Your task to perform on an android device: Go to Google maps Image 0: 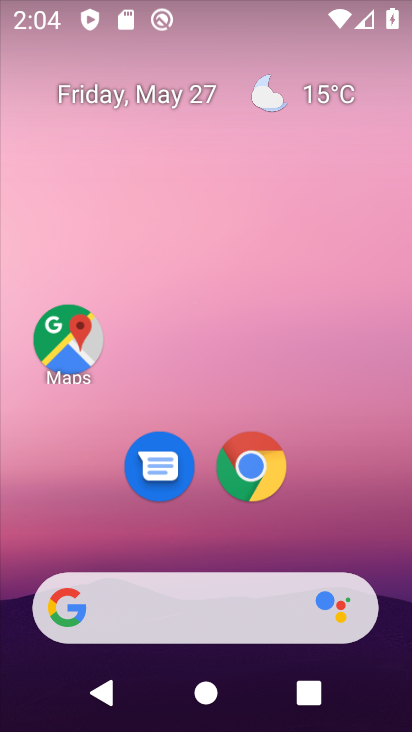
Step 0: drag from (338, 510) to (313, 218)
Your task to perform on an android device: Go to Google maps Image 1: 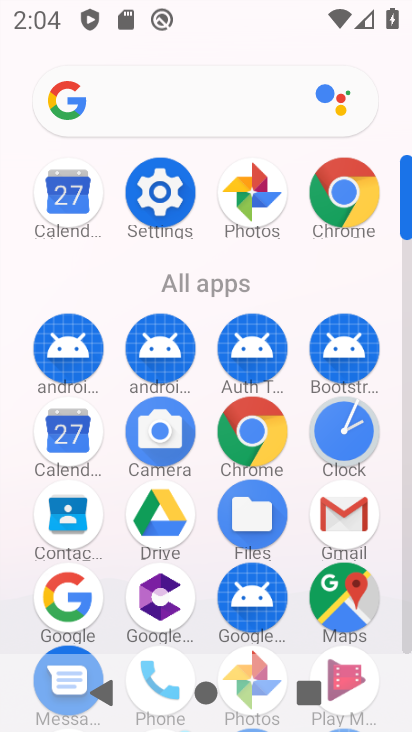
Step 1: click (352, 611)
Your task to perform on an android device: Go to Google maps Image 2: 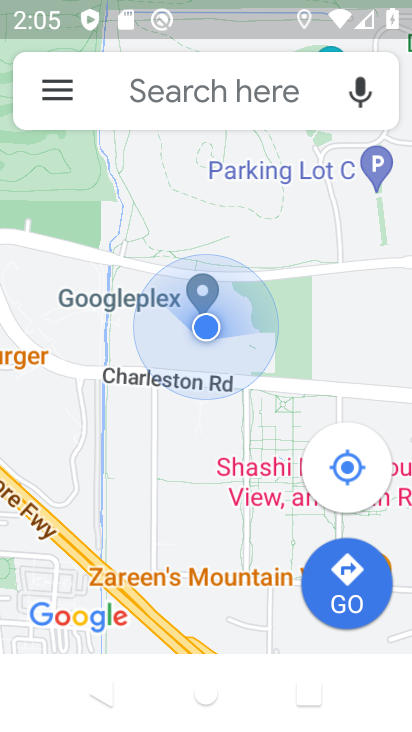
Step 2: task complete